Your task to perform on an android device: Go to privacy settings Image 0: 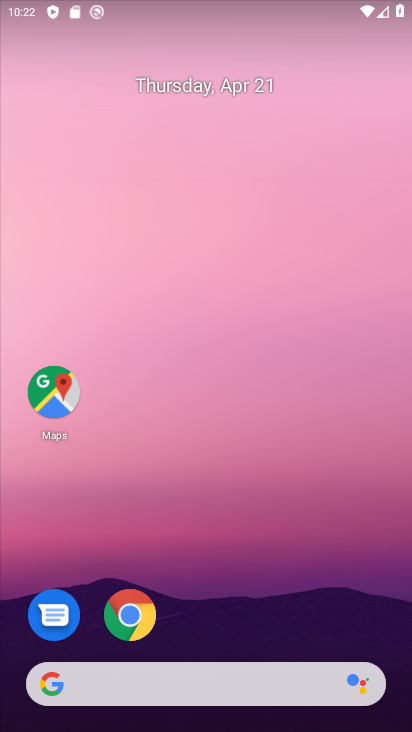
Step 0: click (131, 615)
Your task to perform on an android device: Go to privacy settings Image 1: 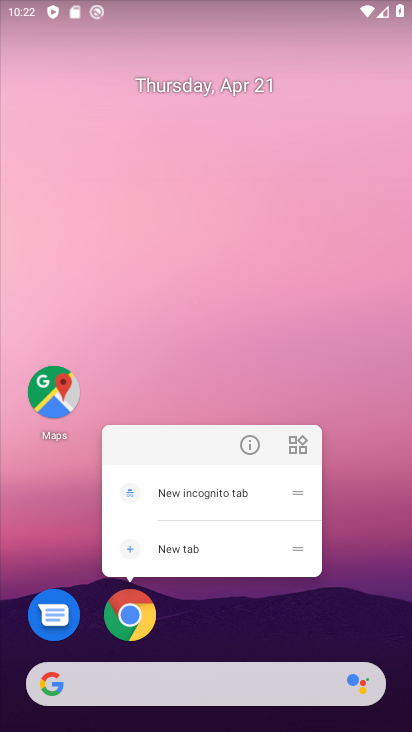
Step 1: click (133, 616)
Your task to perform on an android device: Go to privacy settings Image 2: 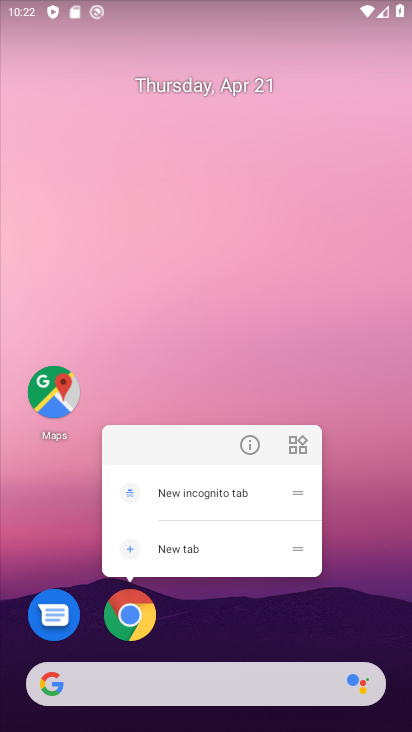
Step 2: click (141, 614)
Your task to perform on an android device: Go to privacy settings Image 3: 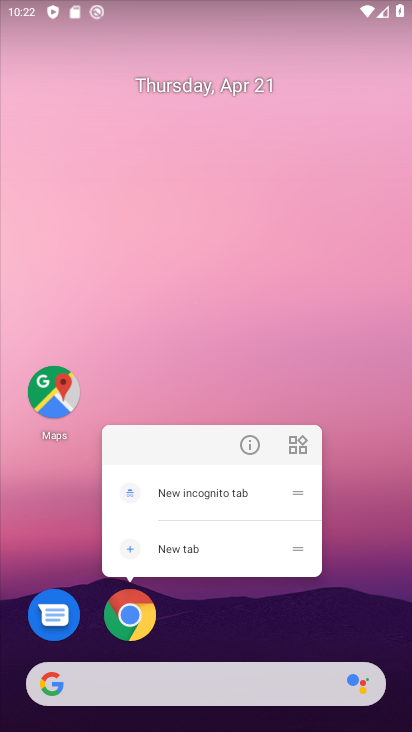
Step 3: click (149, 630)
Your task to perform on an android device: Go to privacy settings Image 4: 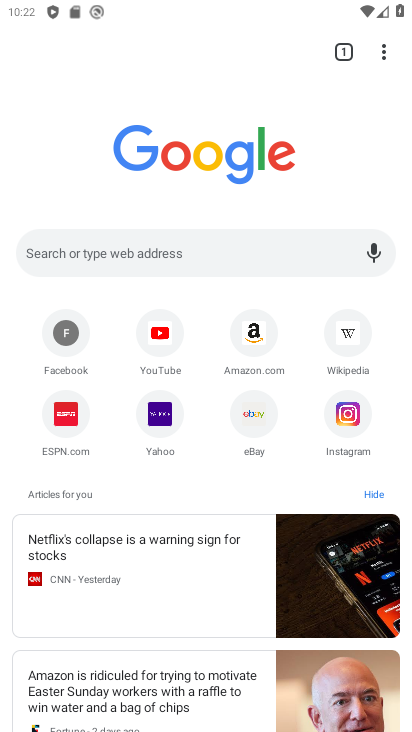
Step 4: drag from (389, 59) to (244, 431)
Your task to perform on an android device: Go to privacy settings Image 5: 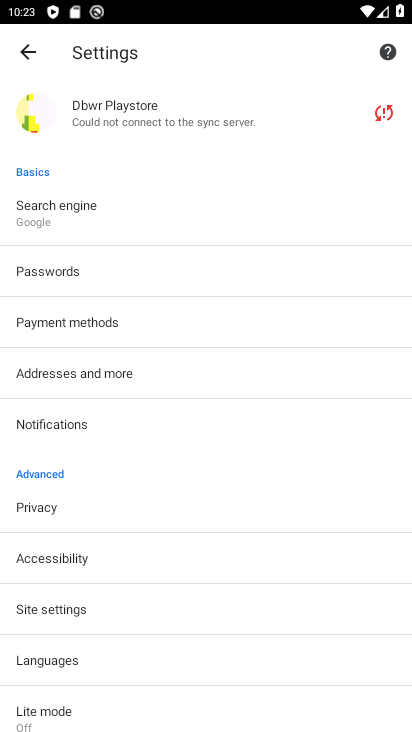
Step 5: click (128, 506)
Your task to perform on an android device: Go to privacy settings Image 6: 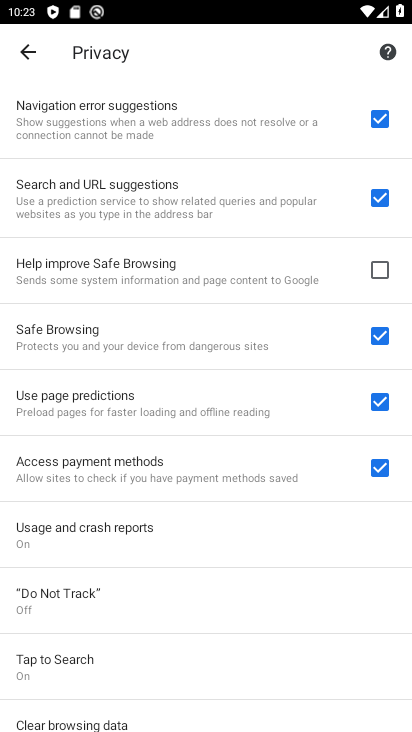
Step 6: task complete